Your task to perform on an android device: open sync settings in chrome Image 0: 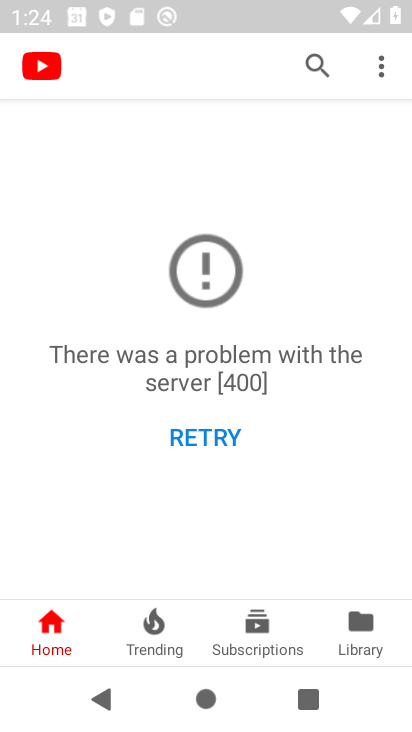
Step 0: press back button
Your task to perform on an android device: open sync settings in chrome Image 1: 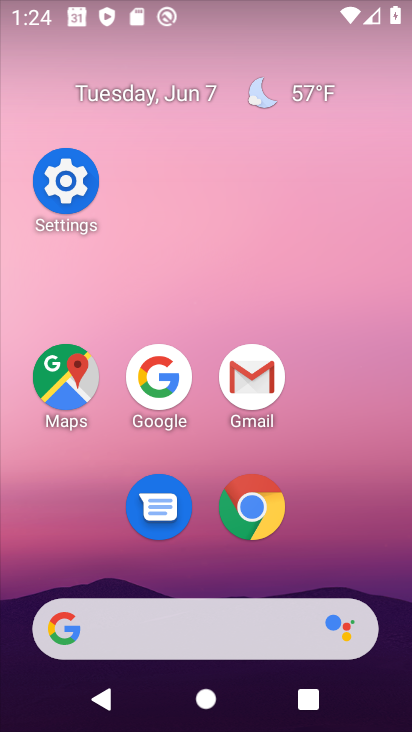
Step 1: click (263, 493)
Your task to perform on an android device: open sync settings in chrome Image 2: 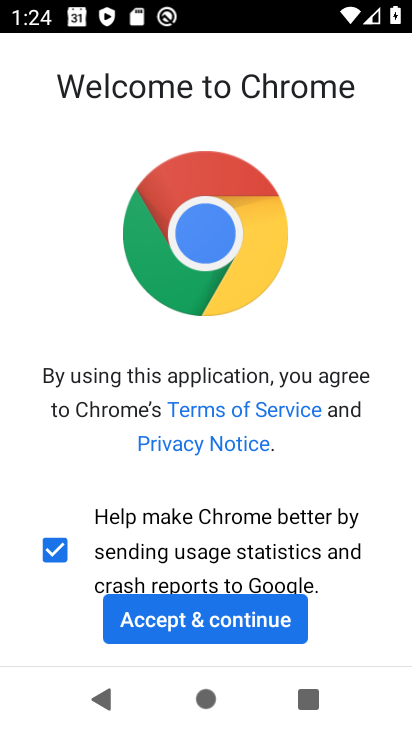
Step 2: click (282, 593)
Your task to perform on an android device: open sync settings in chrome Image 3: 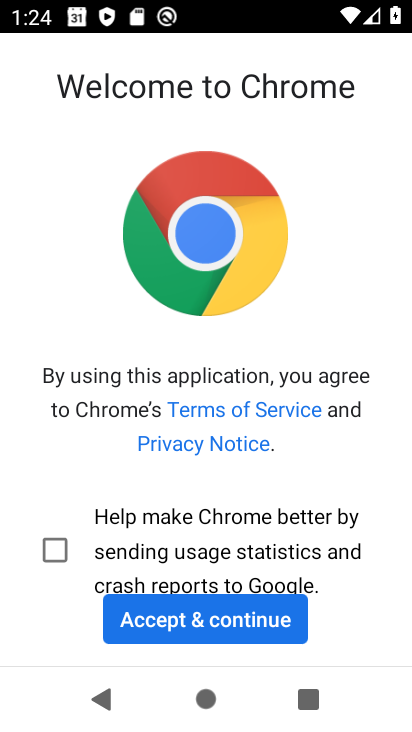
Step 3: click (268, 613)
Your task to perform on an android device: open sync settings in chrome Image 4: 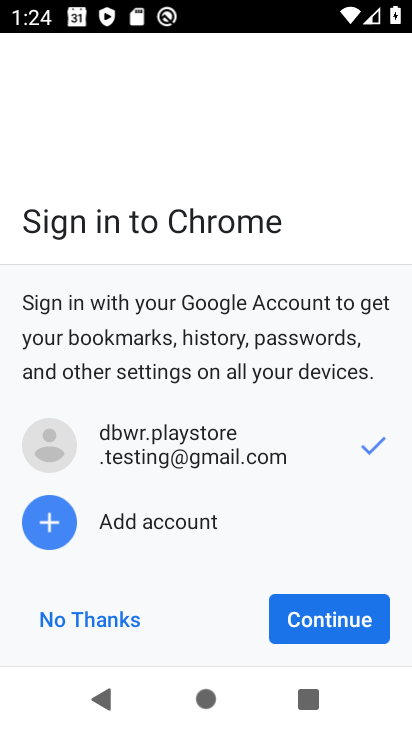
Step 4: click (332, 618)
Your task to perform on an android device: open sync settings in chrome Image 5: 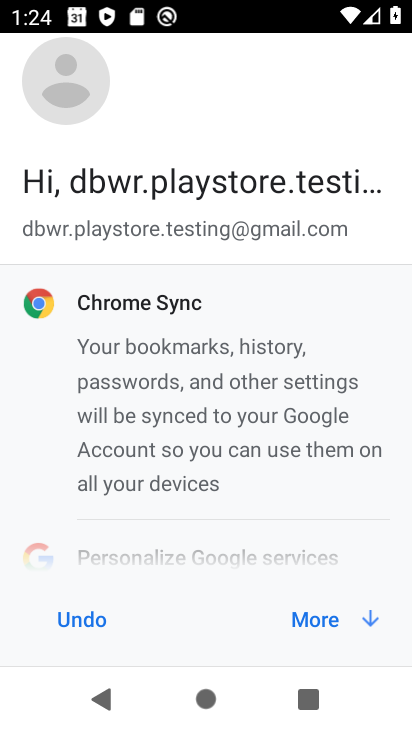
Step 5: click (330, 611)
Your task to perform on an android device: open sync settings in chrome Image 6: 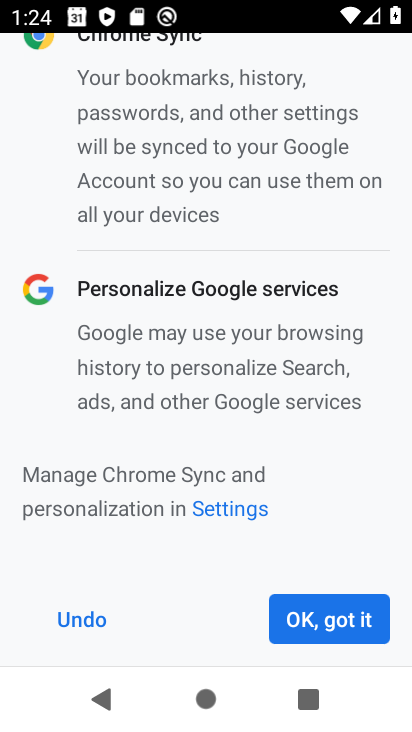
Step 6: click (330, 611)
Your task to perform on an android device: open sync settings in chrome Image 7: 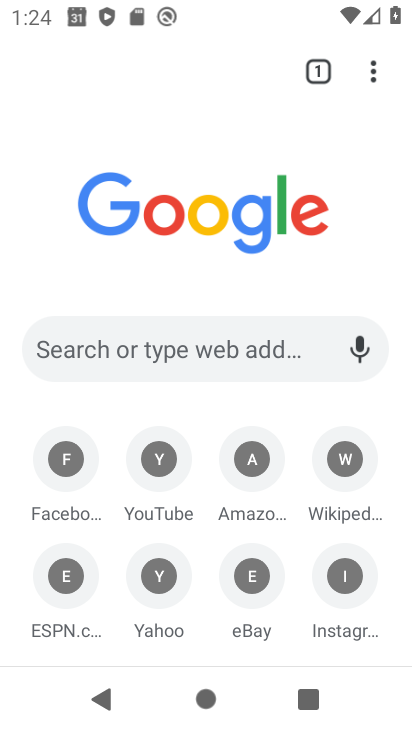
Step 7: click (380, 76)
Your task to perform on an android device: open sync settings in chrome Image 8: 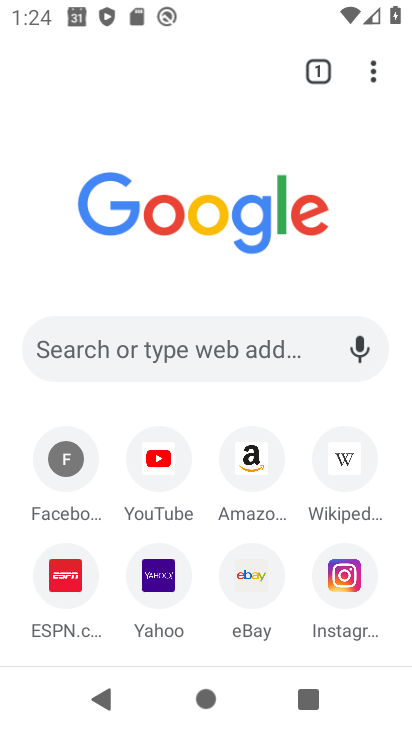
Step 8: click (379, 66)
Your task to perform on an android device: open sync settings in chrome Image 9: 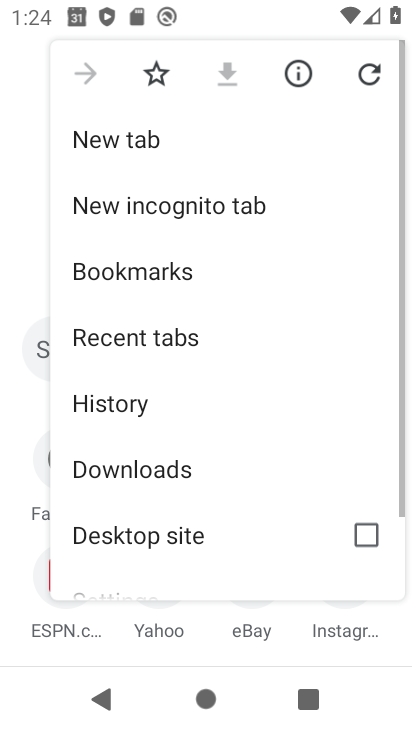
Step 9: drag from (215, 469) to (259, 166)
Your task to perform on an android device: open sync settings in chrome Image 10: 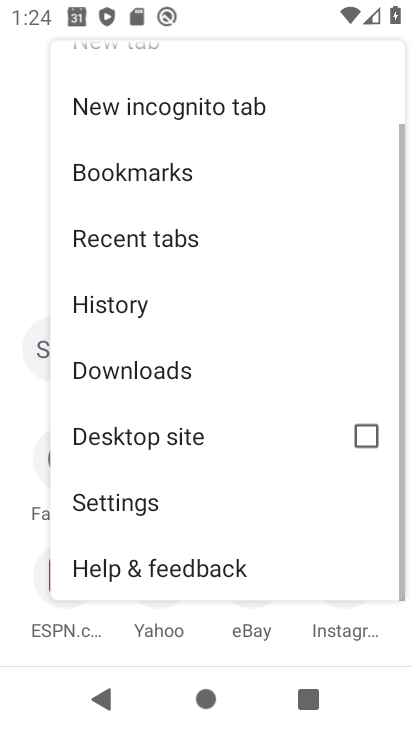
Step 10: click (197, 495)
Your task to perform on an android device: open sync settings in chrome Image 11: 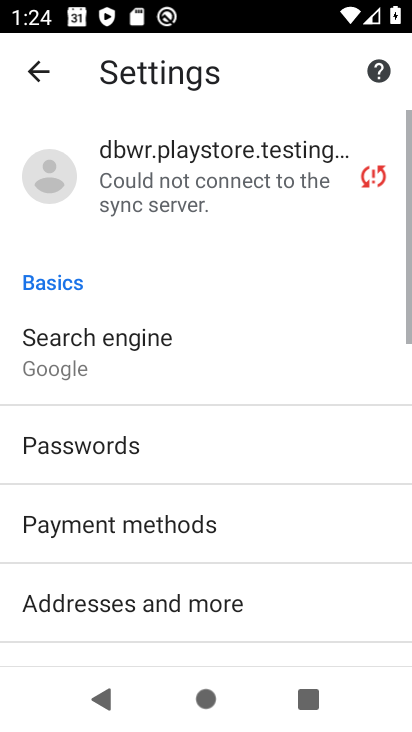
Step 11: drag from (196, 493) to (240, 170)
Your task to perform on an android device: open sync settings in chrome Image 12: 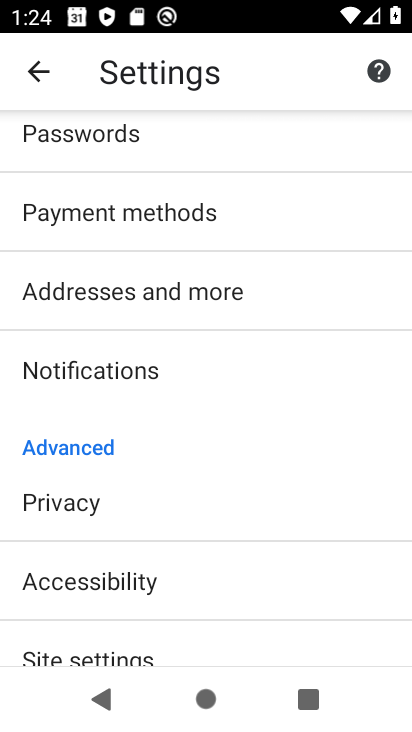
Step 12: drag from (144, 522) to (204, 246)
Your task to perform on an android device: open sync settings in chrome Image 13: 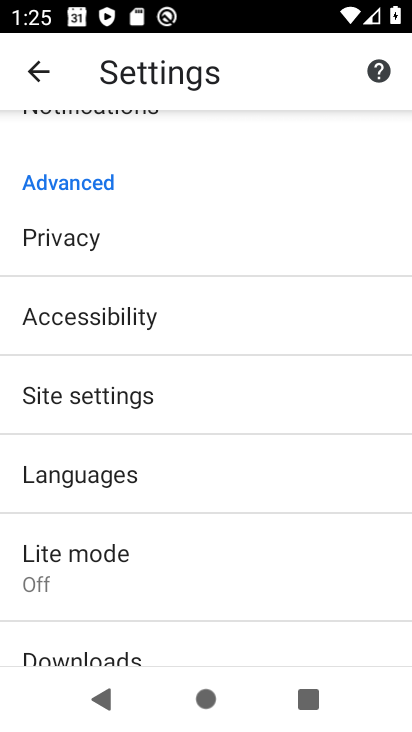
Step 13: click (186, 397)
Your task to perform on an android device: open sync settings in chrome Image 14: 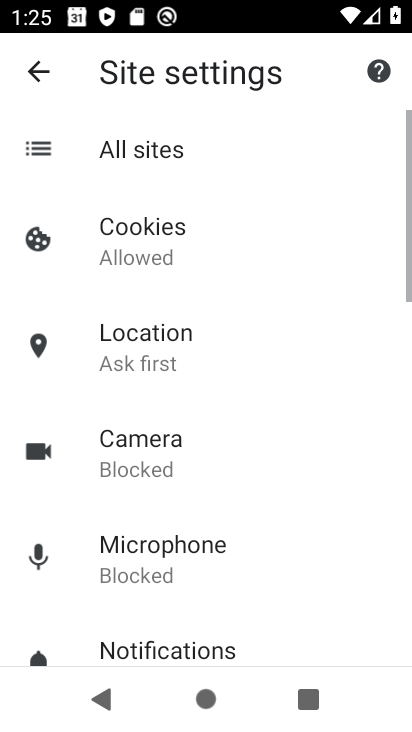
Step 14: drag from (214, 536) to (248, 270)
Your task to perform on an android device: open sync settings in chrome Image 15: 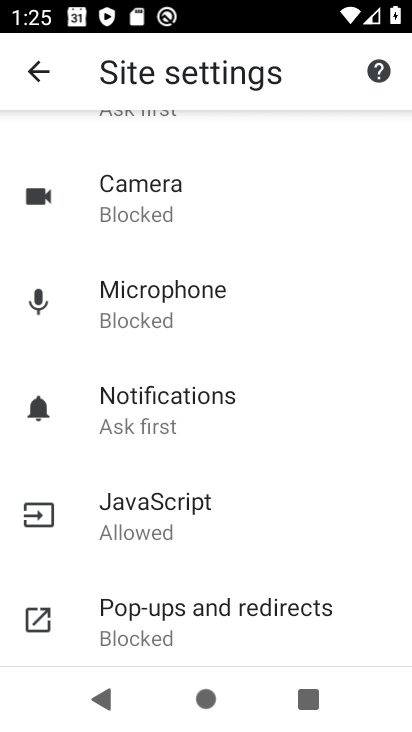
Step 15: drag from (221, 557) to (268, 203)
Your task to perform on an android device: open sync settings in chrome Image 16: 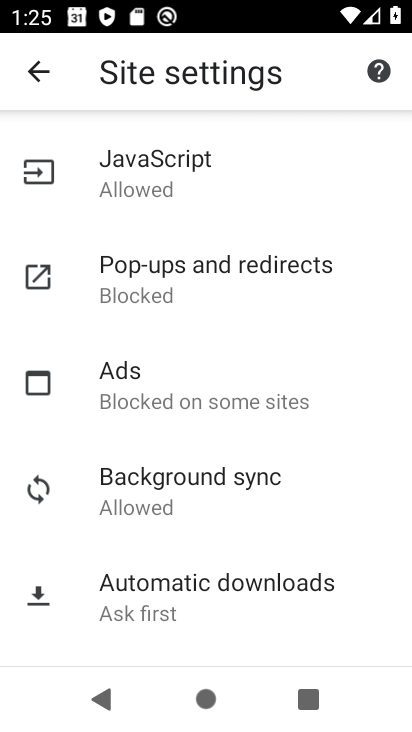
Step 16: click (222, 477)
Your task to perform on an android device: open sync settings in chrome Image 17: 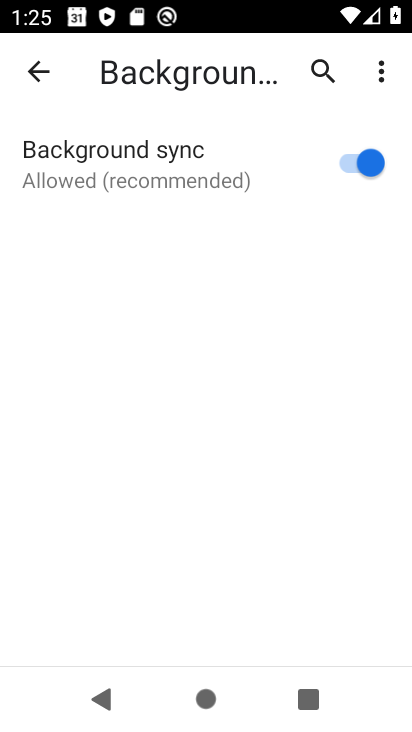
Step 17: task complete